Your task to perform on an android device: Go to Google Image 0: 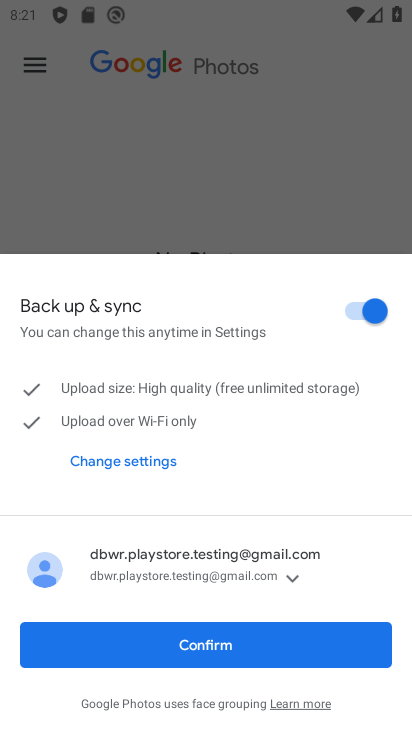
Step 0: press home button
Your task to perform on an android device: Go to Google Image 1: 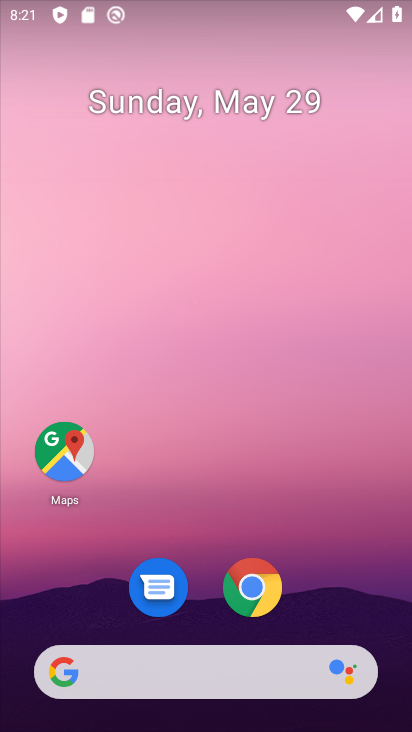
Step 1: click (138, 663)
Your task to perform on an android device: Go to Google Image 2: 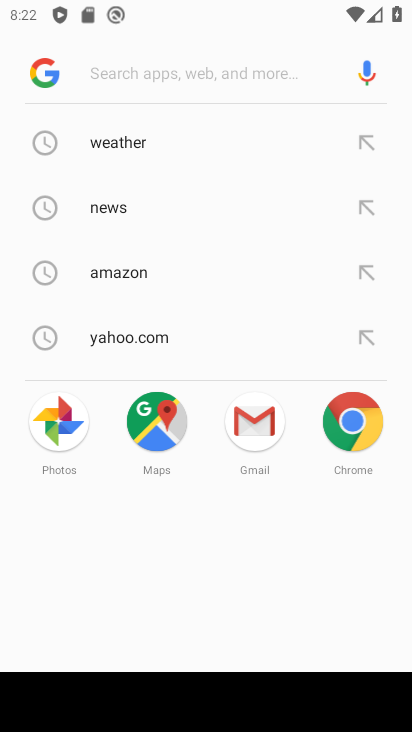
Step 2: task complete